Your task to perform on an android device: Open Youtube and go to the subscriptions tab Image 0: 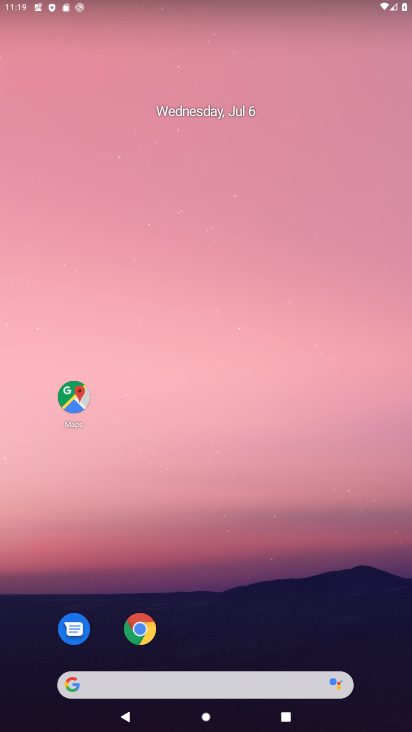
Step 0: drag from (203, 628) to (169, 225)
Your task to perform on an android device: Open Youtube and go to the subscriptions tab Image 1: 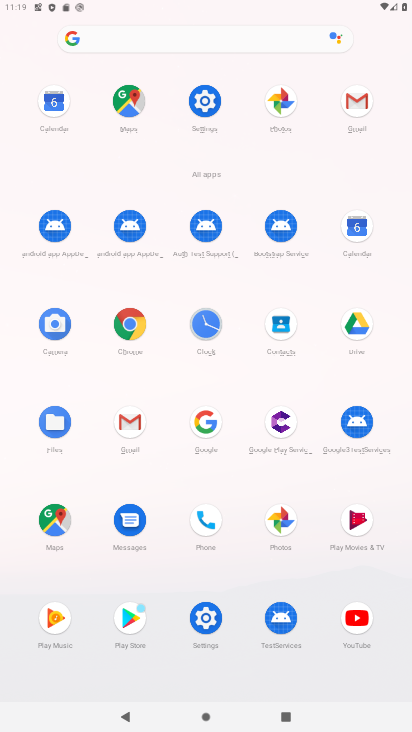
Step 1: click (357, 618)
Your task to perform on an android device: Open Youtube and go to the subscriptions tab Image 2: 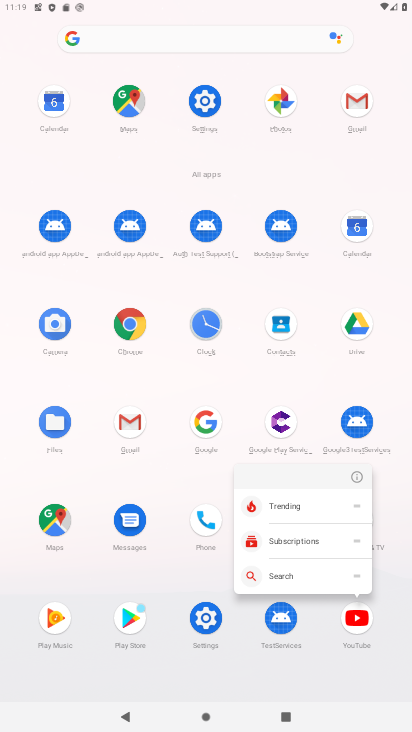
Step 2: click (357, 618)
Your task to perform on an android device: Open Youtube and go to the subscriptions tab Image 3: 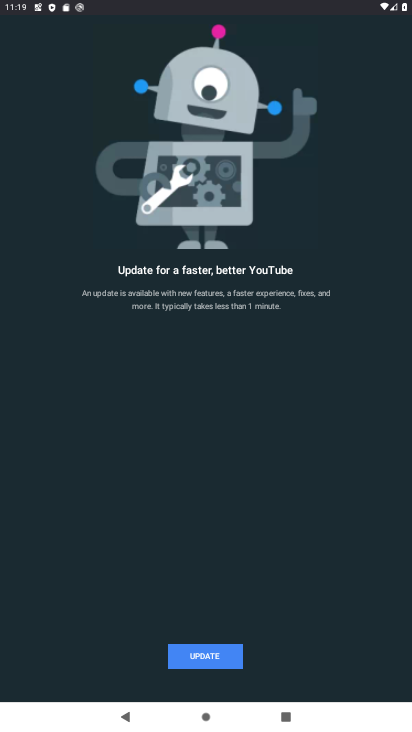
Step 3: click (216, 654)
Your task to perform on an android device: Open Youtube and go to the subscriptions tab Image 4: 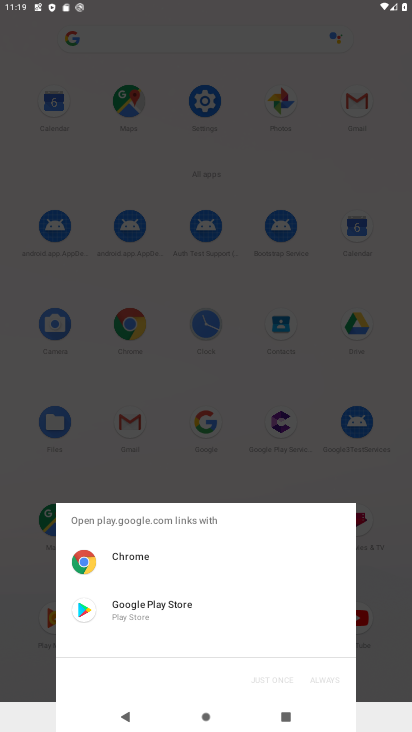
Step 4: click (171, 608)
Your task to perform on an android device: Open Youtube and go to the subscriptions tab Image 5: 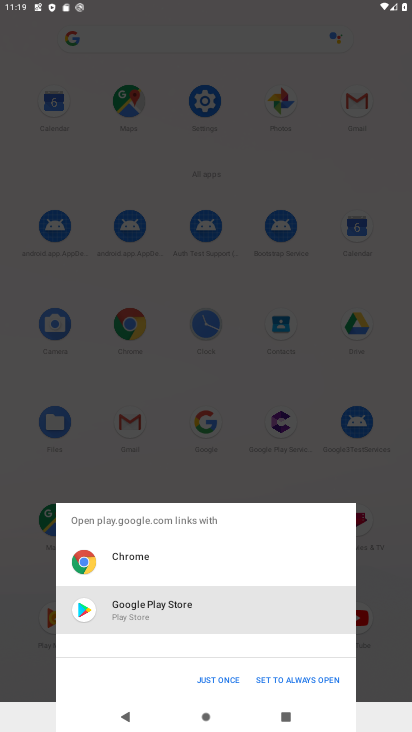
Step 5: click (220, 678)
Your task to perform on an android device: Open Youtube and go to the subscriptions tab Image 6: 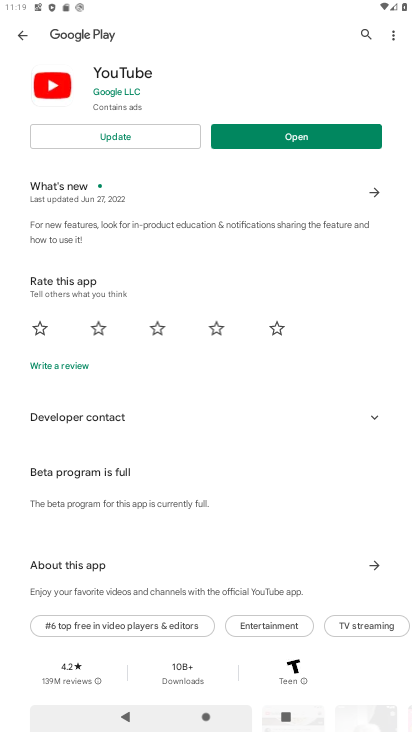
Step 6: click (160, 141)
Your task to perform on an android device: Open Youtube and go to the subscriptions tab Image 7: 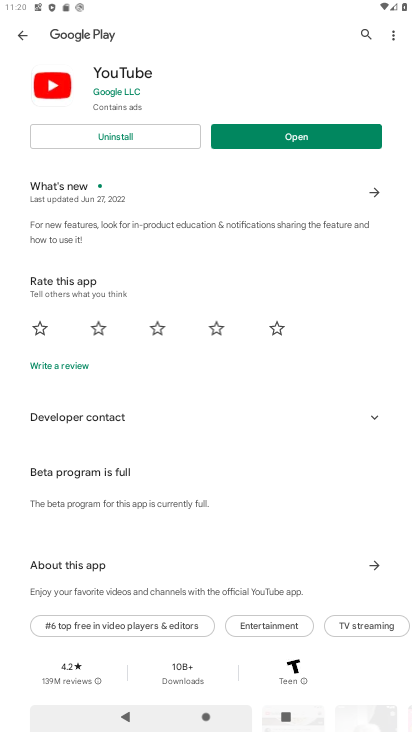
Step 7: click (324, 147)
Your task to perform on an android device: Open Youtube and go to the subscriptions tab Image 8: 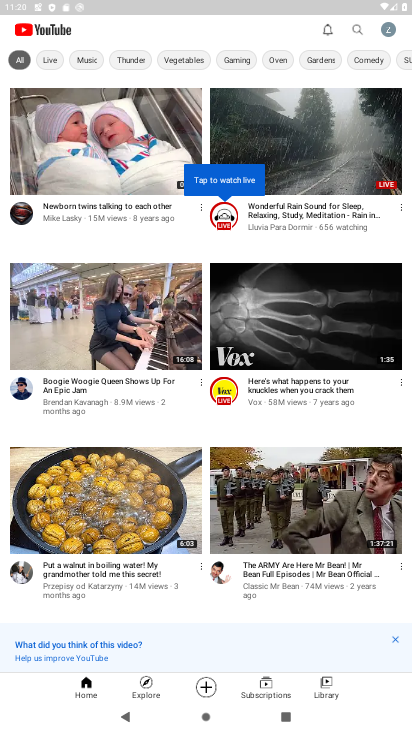
Step 8: click (267, 692)
Your task to perform on an android device: Open Youtube and go to the subscriptions tab Image 9: 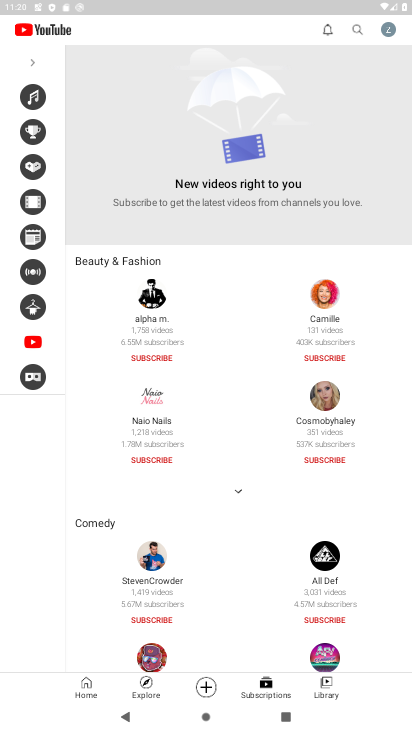
Step 9: task complete